Your task to perform on an android device: open the mobile data screen to see how much data has been used Image 0: 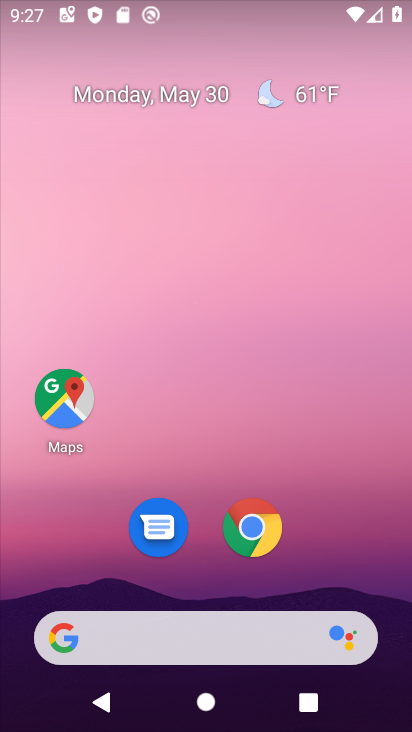
Step 0: drag from (307, 581) to (290, 29)
Your task to perform on an android device: open the mobile data screen to see how much data has been used Image 1: 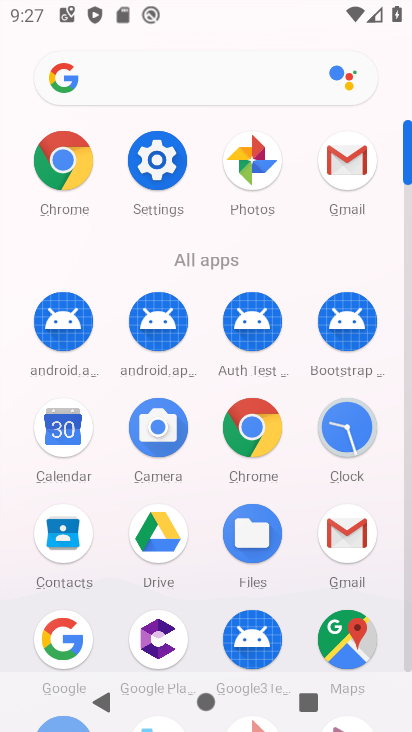
Step 1: click (161, 159)
Your task to perform on an android device: open the mobile data screen to see how much data has been used Image 2: 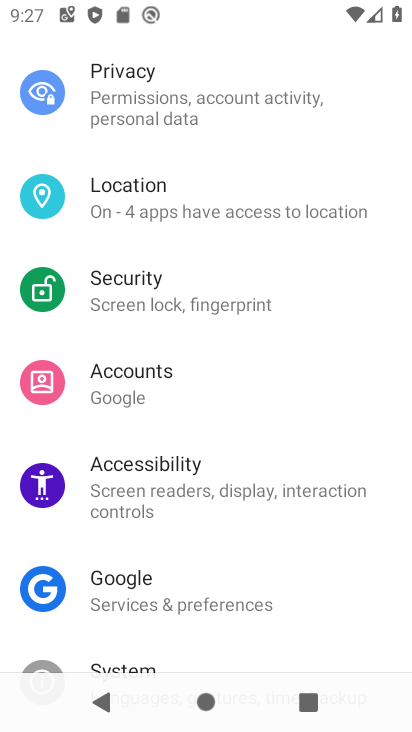
Step 2: drag from (174, 210) to (208, 492)
Your task to perform on an android device: open the mobile data screen to see how much data has been used Image 3: 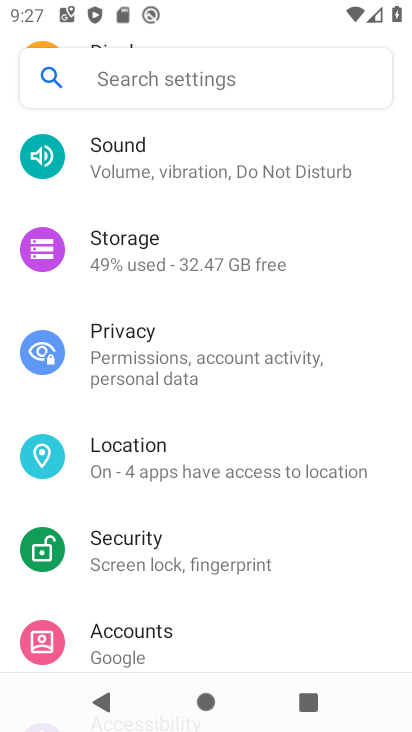
Step 3: drag from (184, 191) to (235, 438)
Your task to perform on an android device: open the mobile data screen to see how much data has been used Image 4: 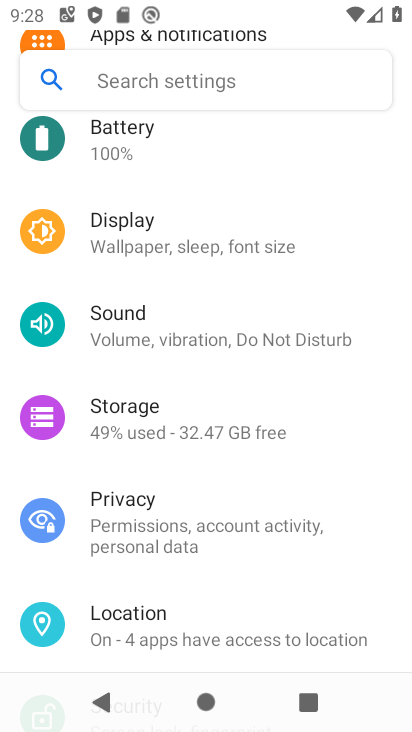
Step 4: drag from (211, 142) to (267, 419)
Your task to perform on an android device: open the mobile data screen to see how much data has been used Image 5: 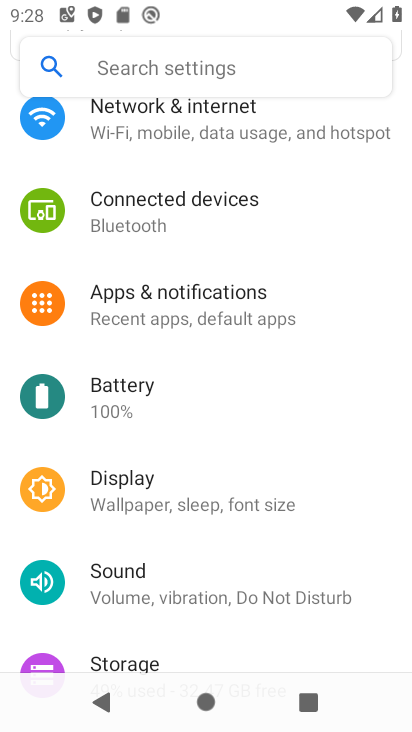
Step 5: click (166, 132)
Your task to perform on an android device: open the mobile data screen to see how much data has been used Image 6: 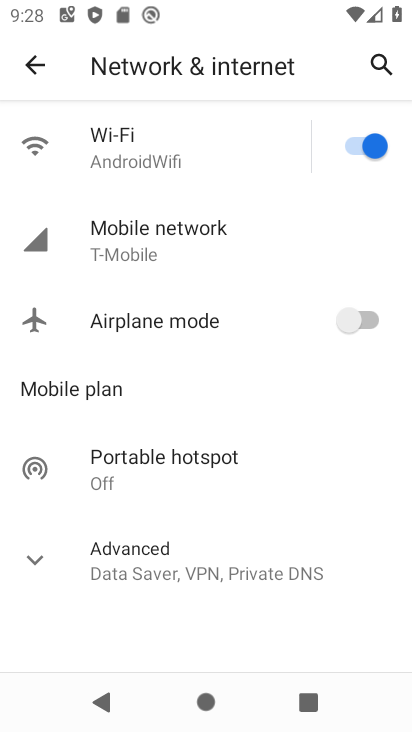
Step 6: click (123, 245)
Your task to perform on an android device: open the mobile data screen to see how much data has been used Image 7: 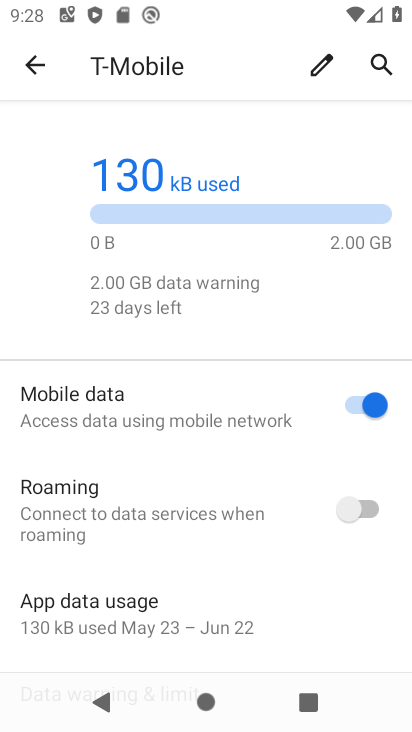
Step 7: click (199, 599)
Your task to perform on an android device: open the mobile data screen to see how much data has been used Image 8: 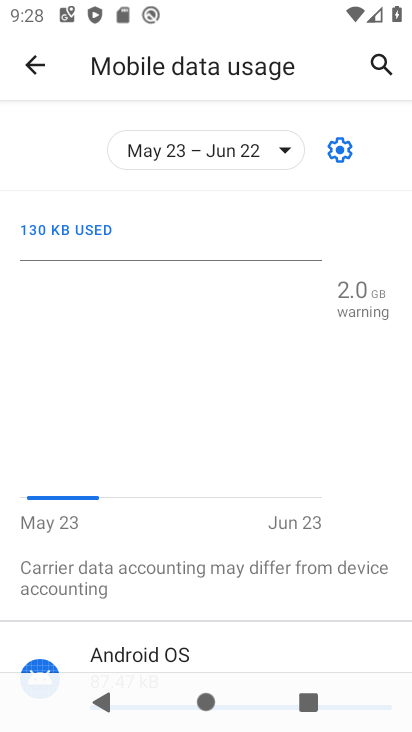
Step 8: task complete